Your task to perform on an android device: choose inbox layout in the gmail app Image 0: 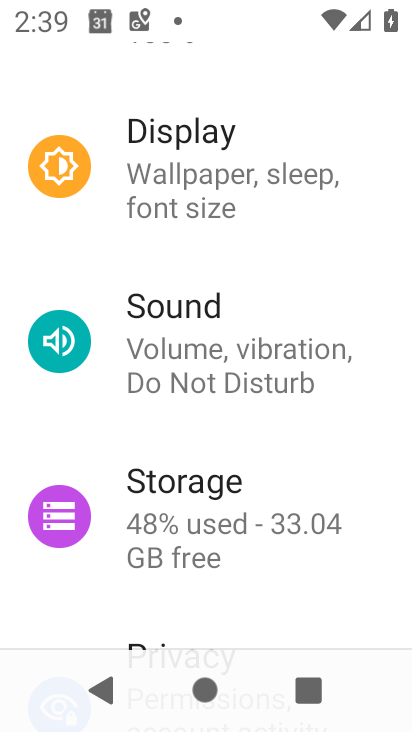
Step 0: drag from (277, 560) to (292, 427)
Your task to perform on an android device: choose inbox layout in the gmail app Image 1: 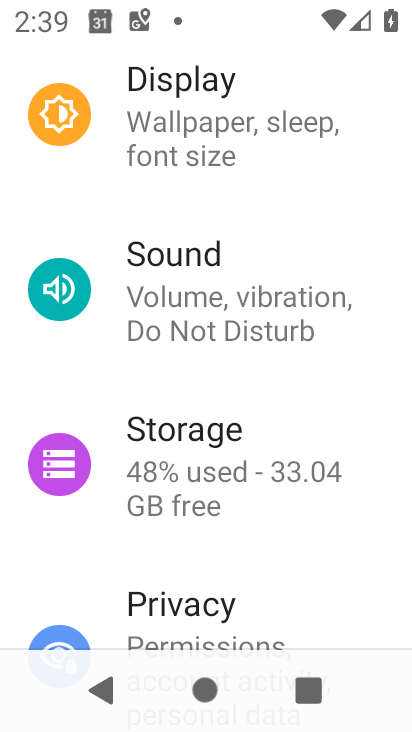
Step 1: press home button
Your task to perform on an android device: choose inbox layout in the gmail app Image 2: 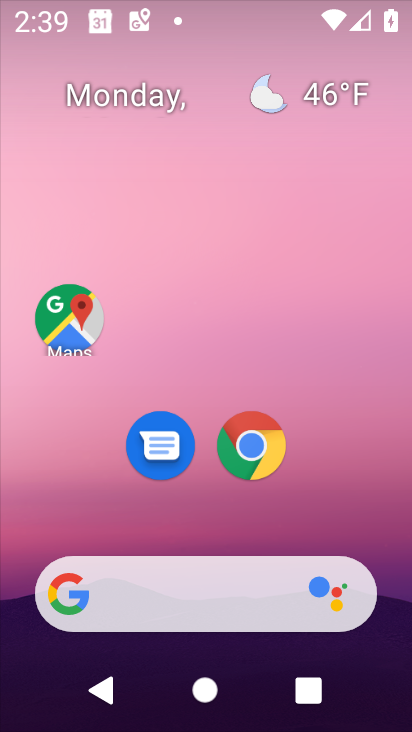
Step 2: drag from (286, 546) to (334, 233)
Your task to perform on an android device: choose inbox layout in the gmail app Image 3: 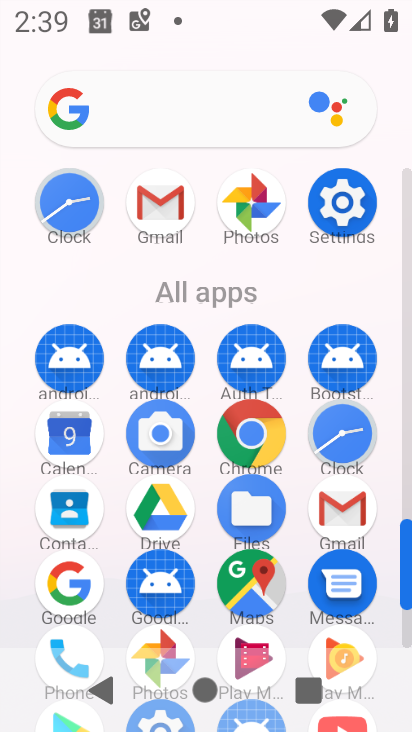
Step 3: click (334, 509)
Your task to perform on an android device: choose inbox layout in the gmail app Image 4: 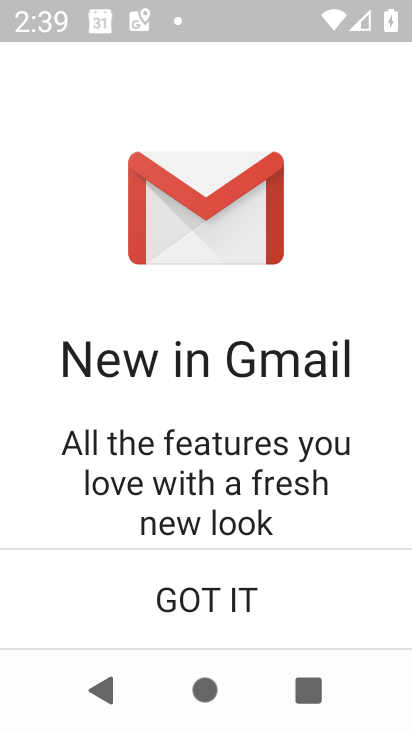
Step 4: click (241, 590)
Your task to perform on an android device: choose inbox layout in the gmail app Image 5: 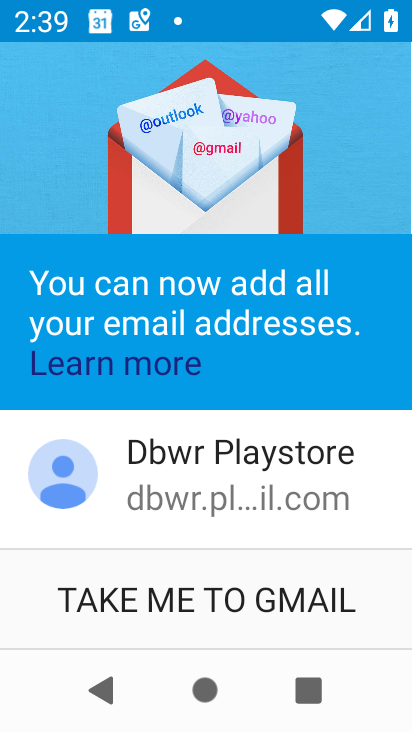
Step 5: click (239, 607)
Your task to perform on an android device: choose inbox layout in the gmail app Image 6: 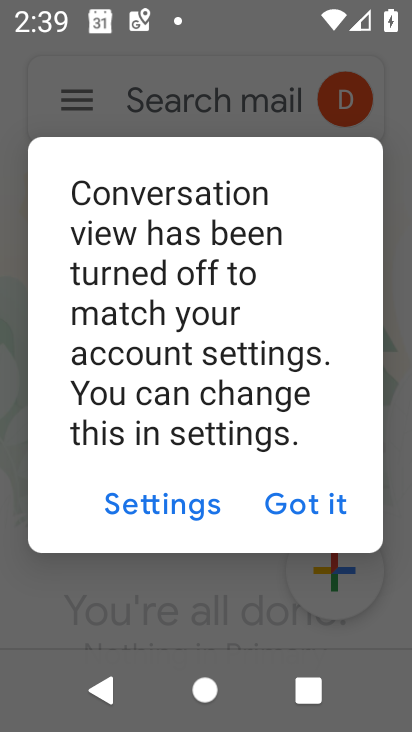
Step 6: click (316, 519)
Your task to perform on an android device: choose inbox layout in the gmail app Image 7: 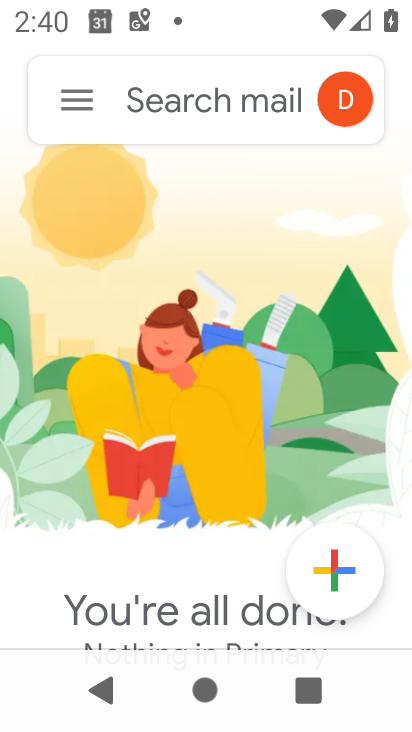
Step 7: click (82, 95)
Your task to perform on an android device: choose inbox layout in the gmail app Image 8: 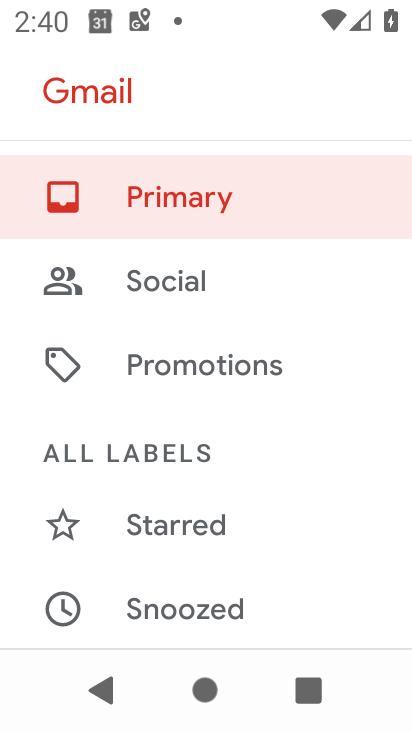
Step 8: click (200, 211)
Your task to perform on an android device: choose inbox layout in the gmail app Image 9: 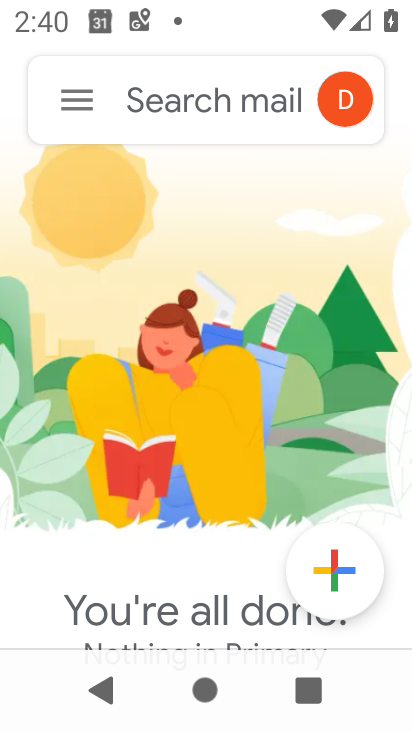
Step 9: task complete